Your task to perform on an android device: Turn off the flashlight Image 0: 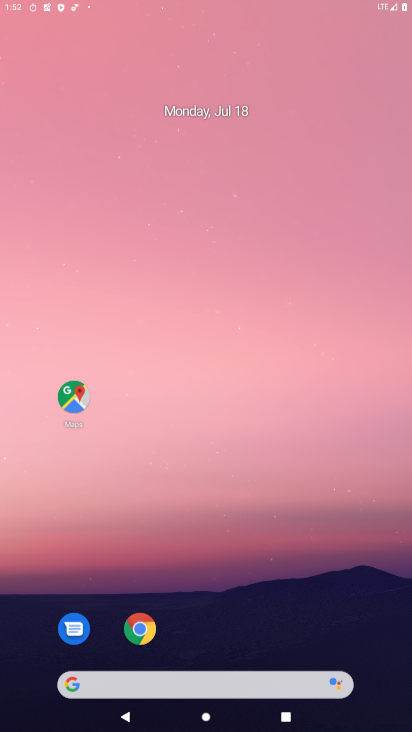
Step 0: press home button
Your task to perform on an android device: Turn off the flashlight Image 1: 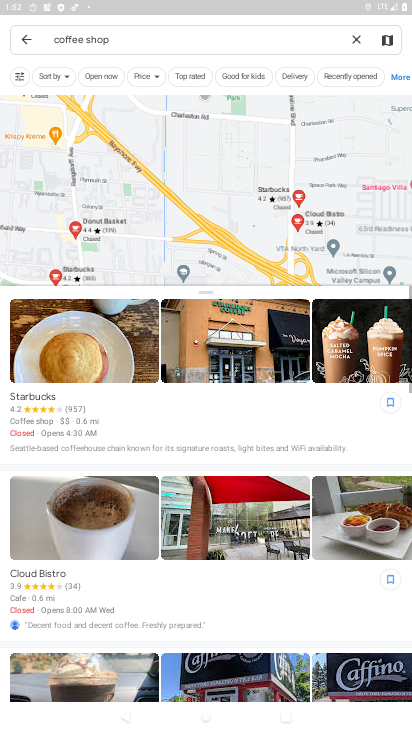
Step 1: drag from (240, 480) to (280, 9)
Your task to perform on an android device: Turn off the flashlight Image 2: 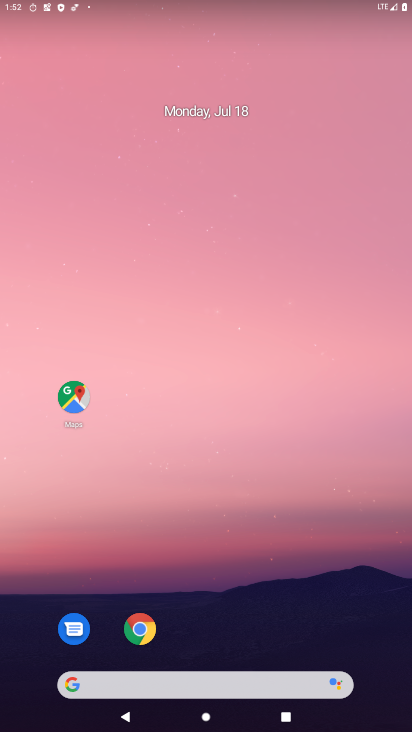
Step 2: drag from (212, 646) to (258, 54)
Your task to perform on an android device: Turn off the flashlight Image 3: 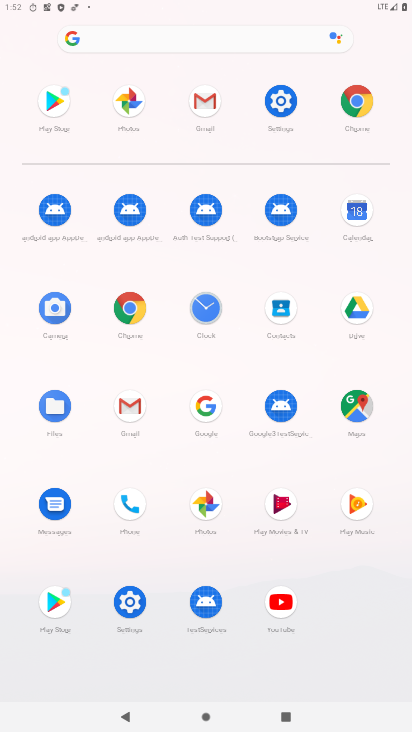
Step 3: click (281, 92)
Your task to perform on an android device: Turn off the flashlight Image 4: 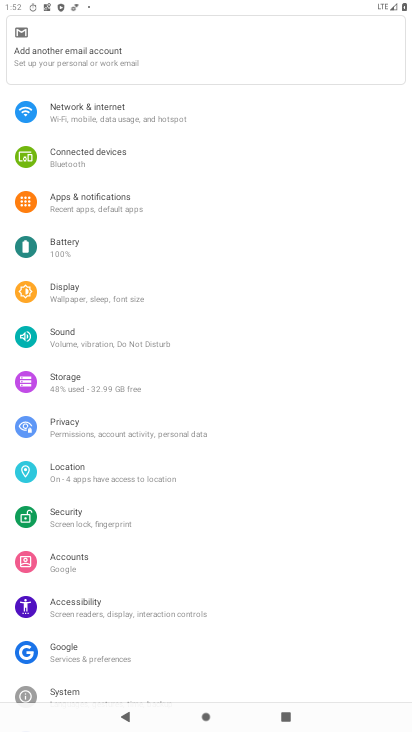
Step 4: drag from (132, 152) to (187, 447)
Your task to perform on an android device: Turn off the flashlight Image 5: 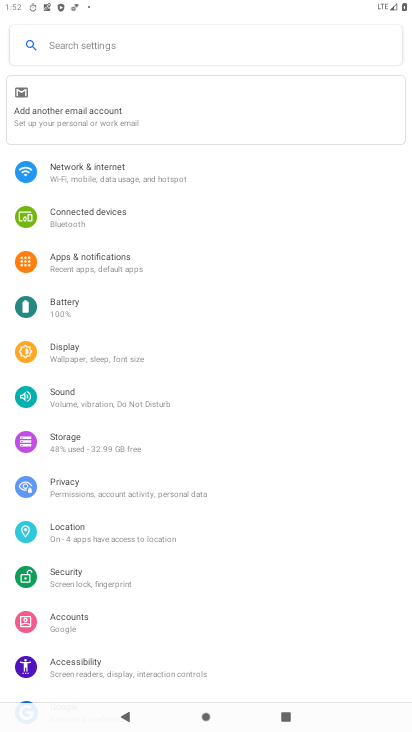
Step 5: click (117, 42)
Your task to perform on an android device: Turn off the flashlight Image 6: 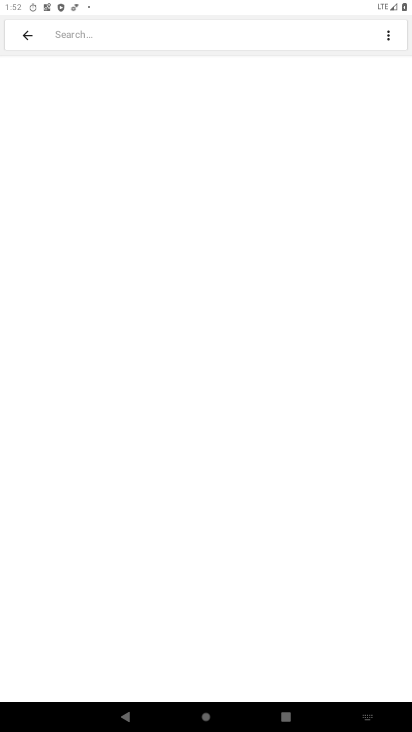
Step 6: type "Flashlight"
Your task to perform on an android device: Turn off the flashlight Image 7: 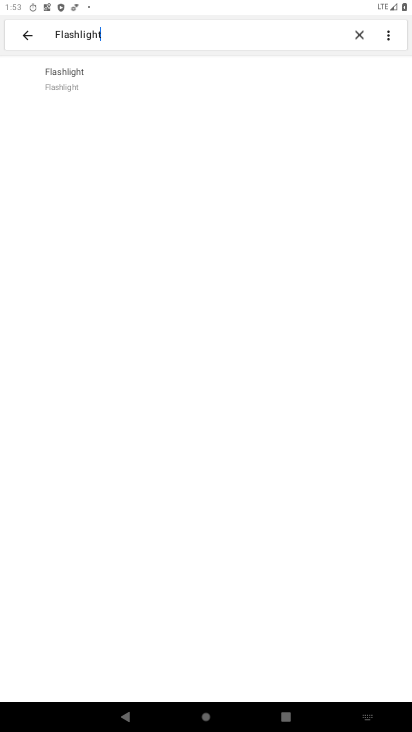
Step 7: click (101, 74)
Your task to perform on an android device: Turn off the flashlight Image 8: 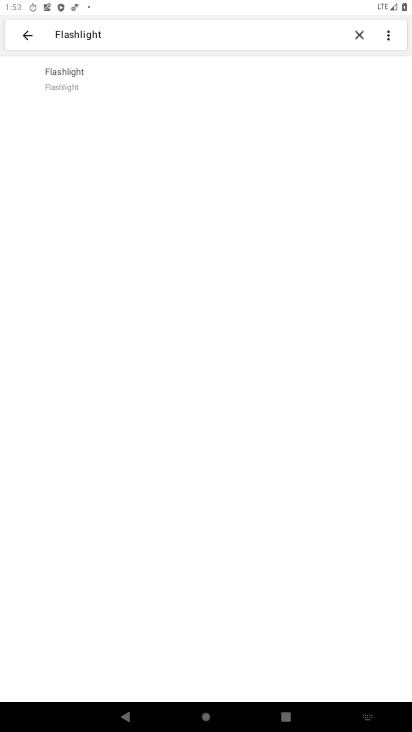
Step 8: task complete